Your task to perform on an android device: turn notification dots on Image 0: 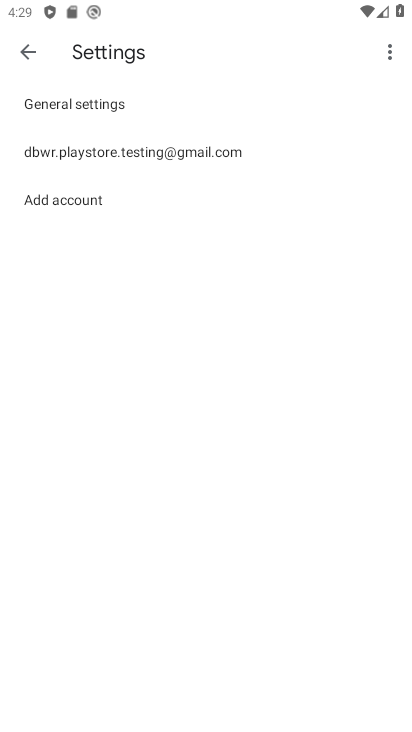
Step 0: press home button
Your task to perform on an android device: turn notification dots on Image 1: 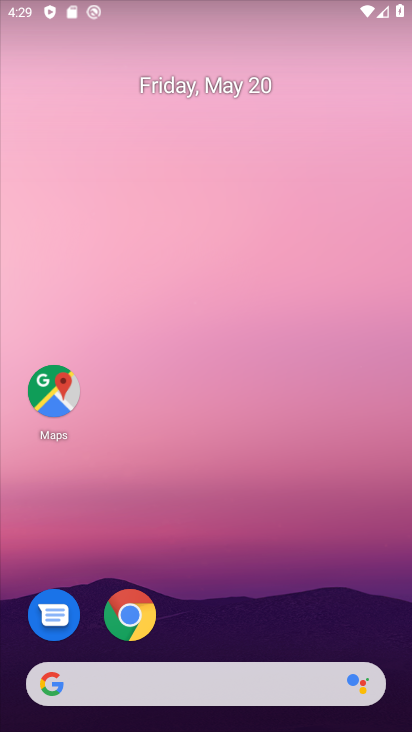
Step 1: drag from (166, 725) to (285, 90)
Your task to perform on an android device: turn notification dots on Image 2: 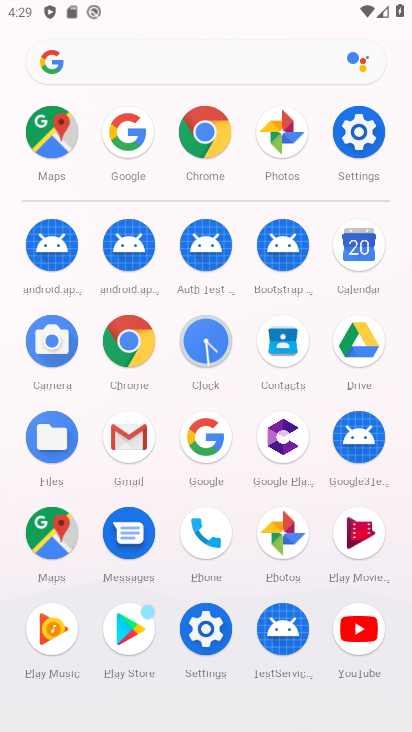
Step 2: click (367, 160)
Your task to perform on an android device: turn notification dots on Image 3: 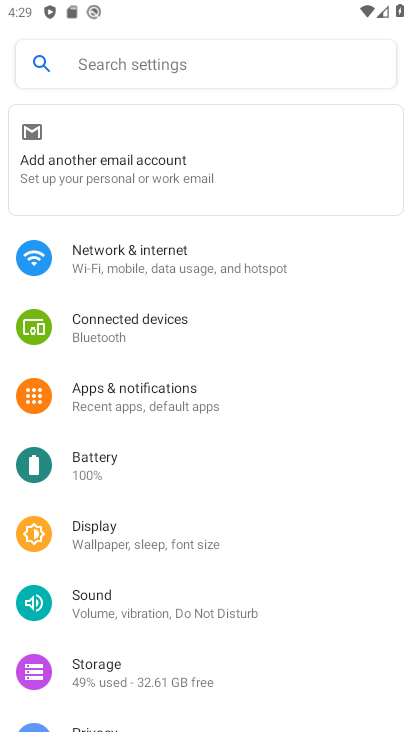
Step 3: click (205, 405)
Your task to perform on an android device: turn notification dots on Image 4: 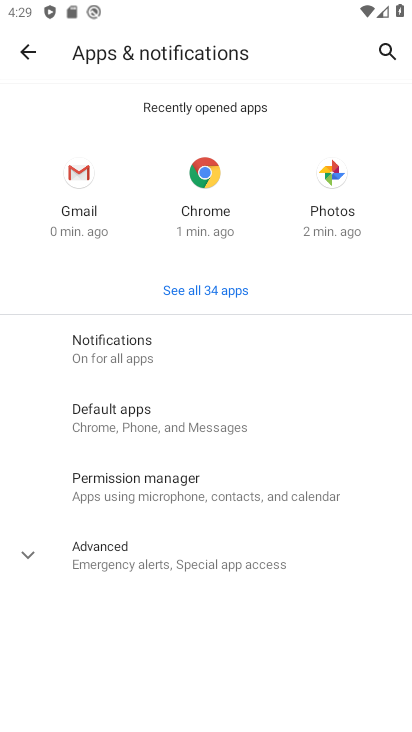
Step 4: click (206, 373)
Your task to perform on an android device: turn notification dots on Image 5: 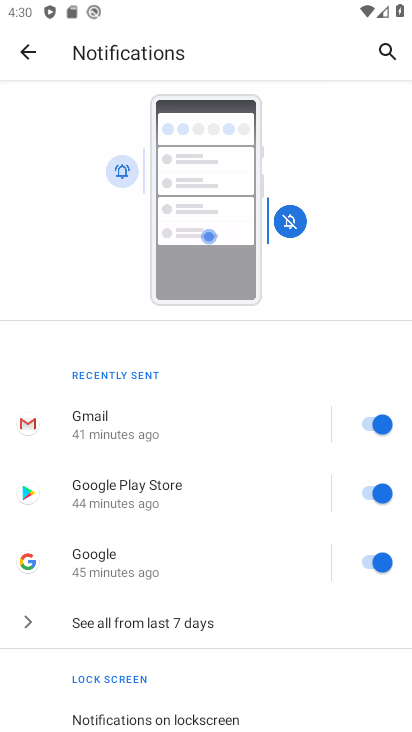
Step 5: drag from (212, 586) to (211, 168)
Your task to perform on an android device: turn notification dots on Image 6: 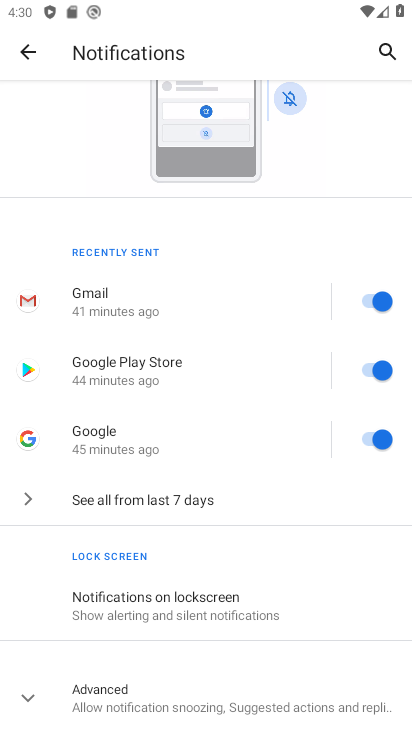
Step 6: click (189, 696)
Your task to perform on an android device: turn notification dots on Image 7: 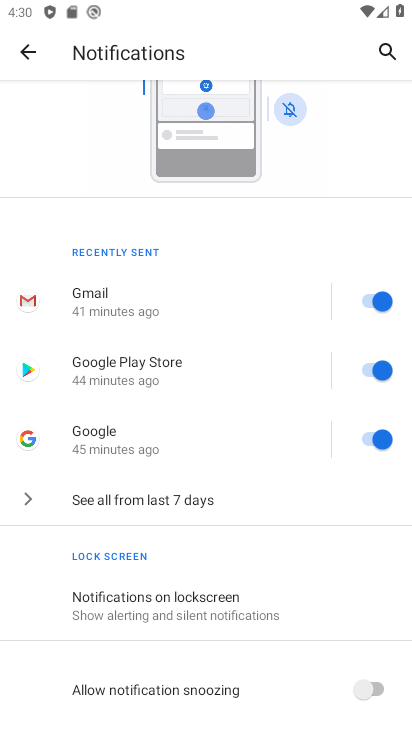
Step 7: task complete